Your task to perform on an android device: Do I have any events this weekend? Image 0: 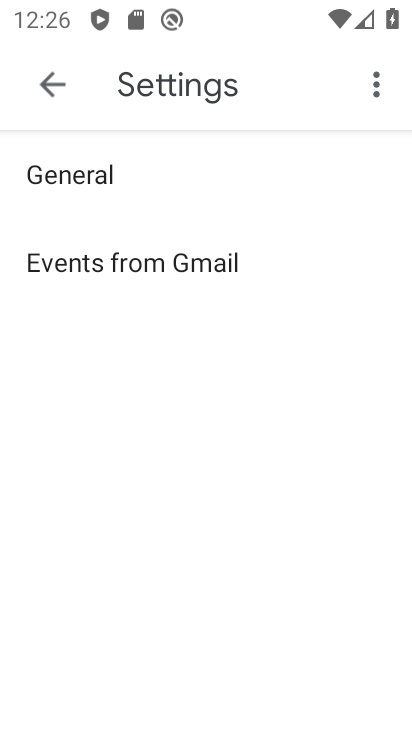
Step 0: press home button
Your task to perform on an android device: Do I have any events this weekend? Image 1: 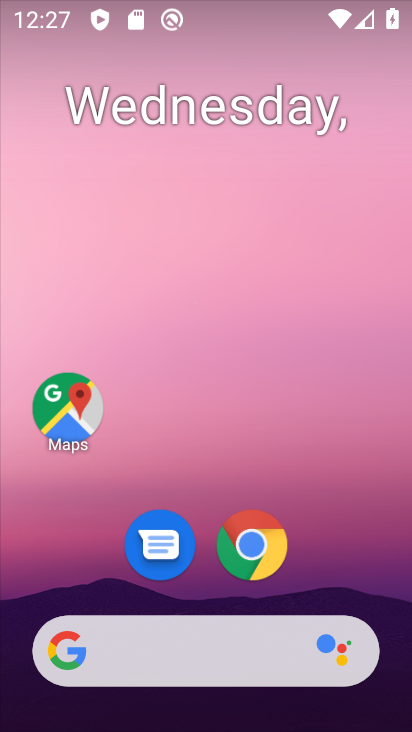
Step 1: drag from (366, 574) to (361, 19)
Your task to perform on an android device: Do I have any events this weekend? Image 2: 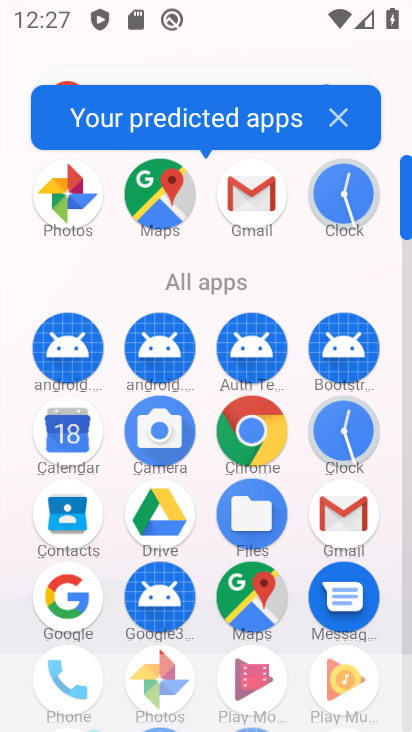
Step 2: click (67, 450)
Your task to perform on an android device: Do I have any events this weekend? Image 3: 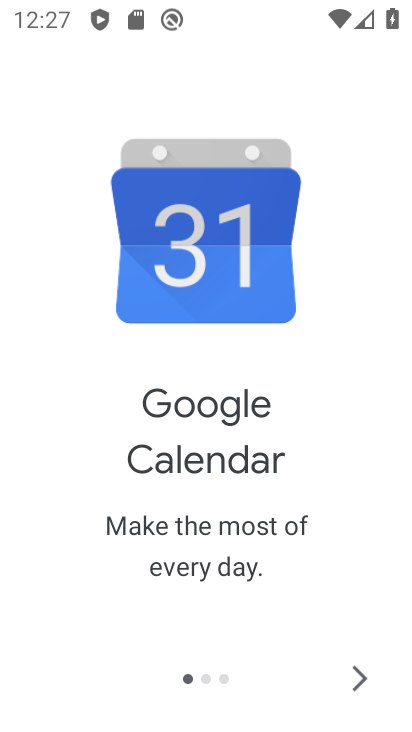
Step 3: click (366, 673)
Your task to perform on an android device: Do I have any events this weekend? Image 4: 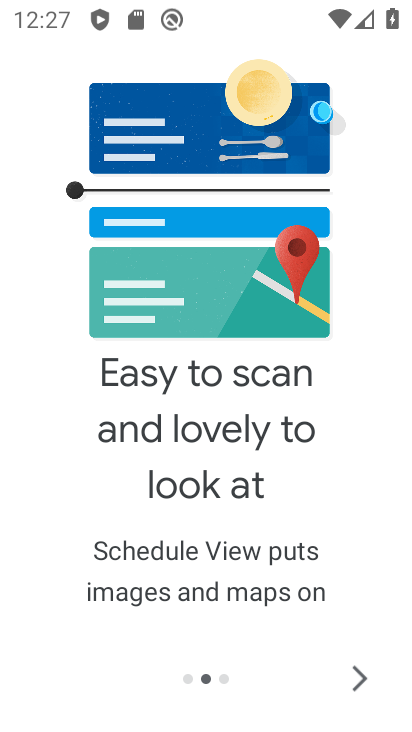
Step 4: click (364, 672)
Your task to perform on an android device: Do I have any events this weekend? Image 5: 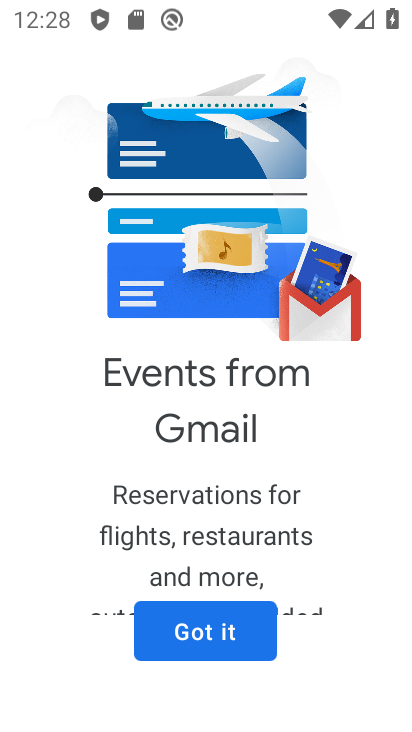
Step 5: click (202, 638)
Your task to perform on an android device: Do I have any events this weekend? Image 6: 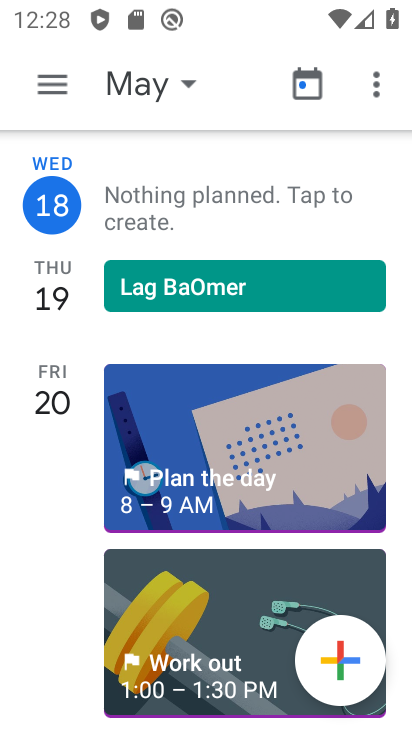
Step 6: task complete